Your task to perform on an android device: Open settings Image 0: 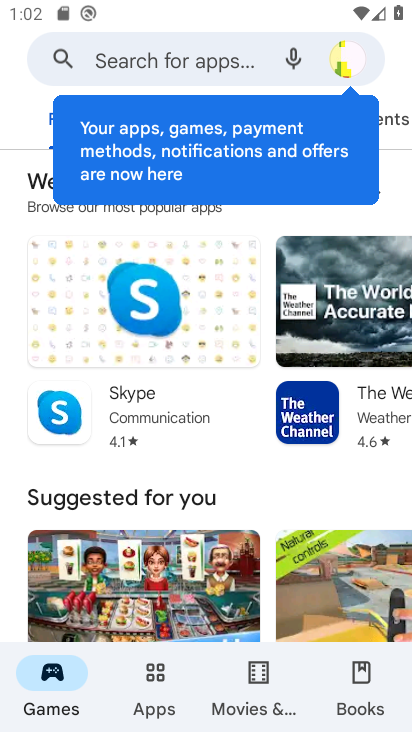
Step 0: press home button
Your task to perform on an android device: Open settings Image 1: 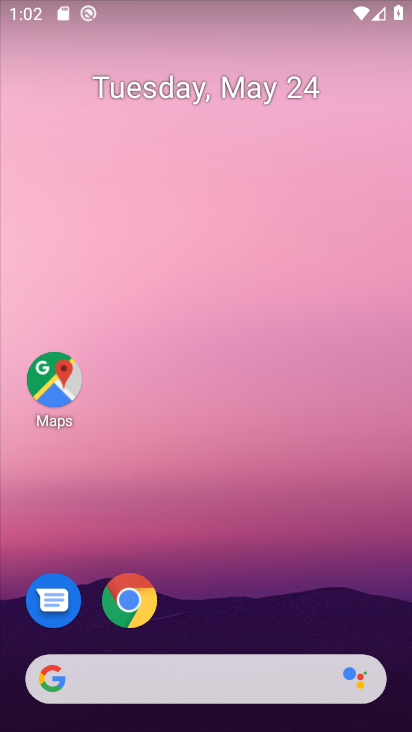
Step 1: drag from (207, 608) to (191, 131)
Your task to perform on an android device: Open settings Image 2: 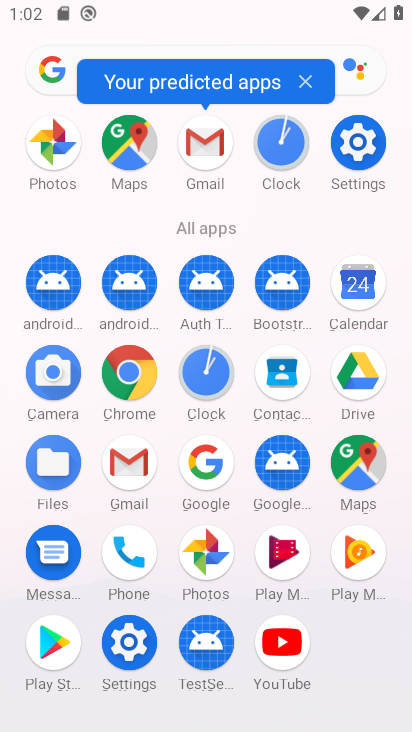
Step 2: click (397, 147)
Your task to perform on an android device: Open settings Image 3: 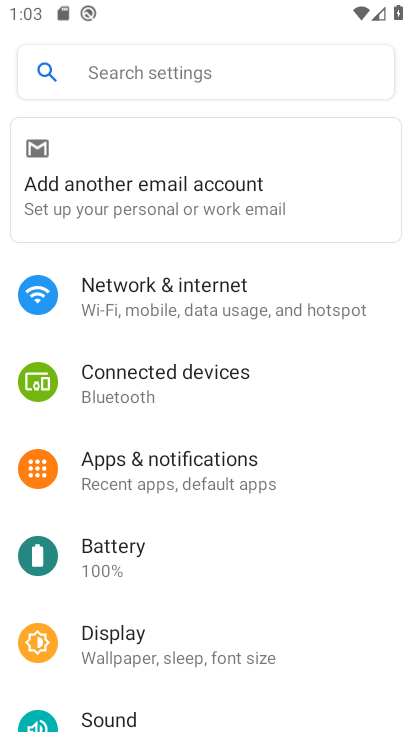
Step 3: task complete